Your task to perform on an android device: delete a single message in the gmail app Image 0: 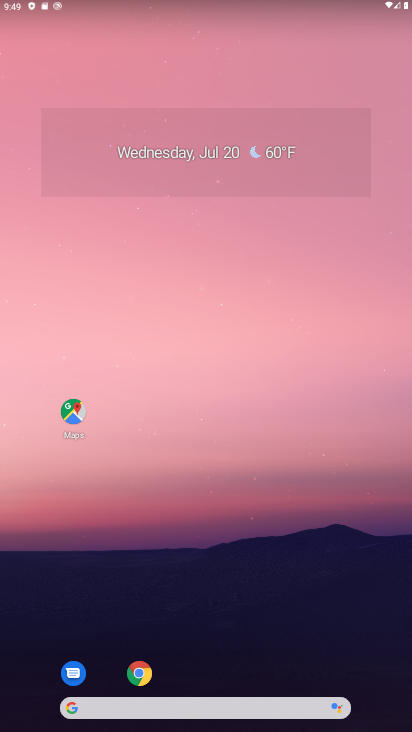
Step 0: drag from (256, 655) to (171, 0)
Your task to perform on an android device: delete a single message in the gmail app Image 1: 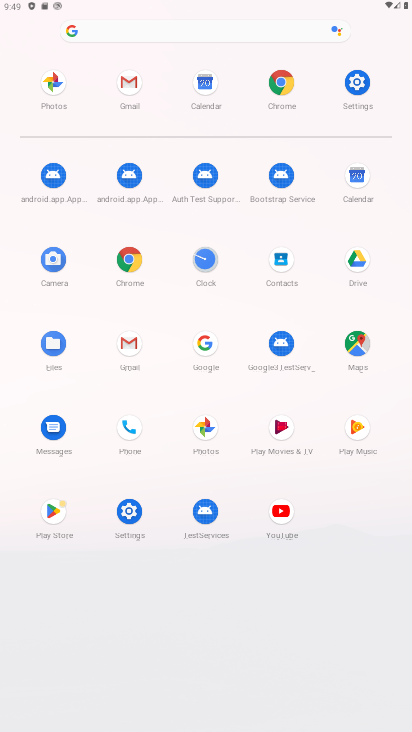
Step 1: click (141, 350)
Your task to perform on an android device: delete a single message in the gmail app Image 2: 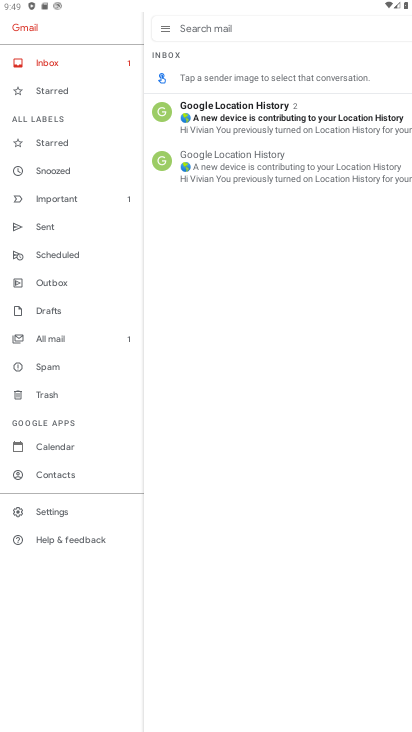
Step 2: click (157, 114)
Your task to perform on an android device: delete a single message in the gmail app Image 3: 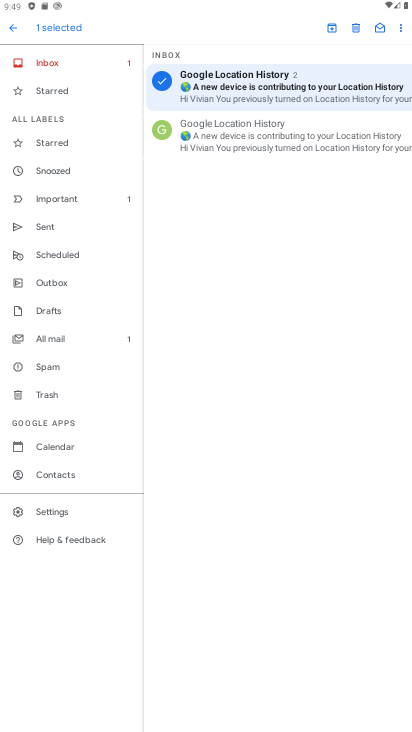
Step 3: click (356, 30)
Your task to perform on an android device: delete a single message in the gmail app Image 4: 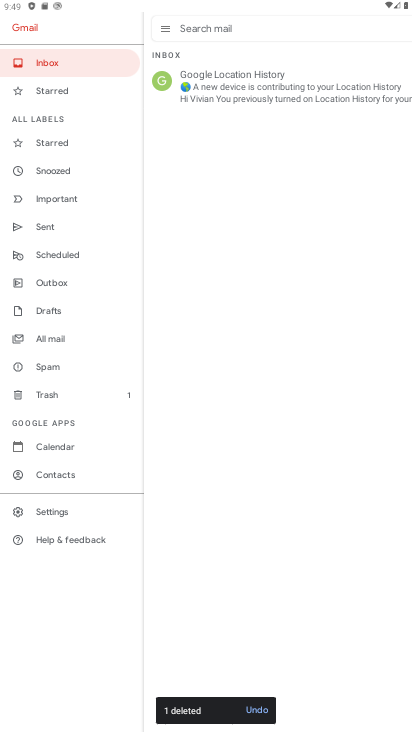
Step 4: task complete